Your task to perform on an android device: change the clock style Image 0: 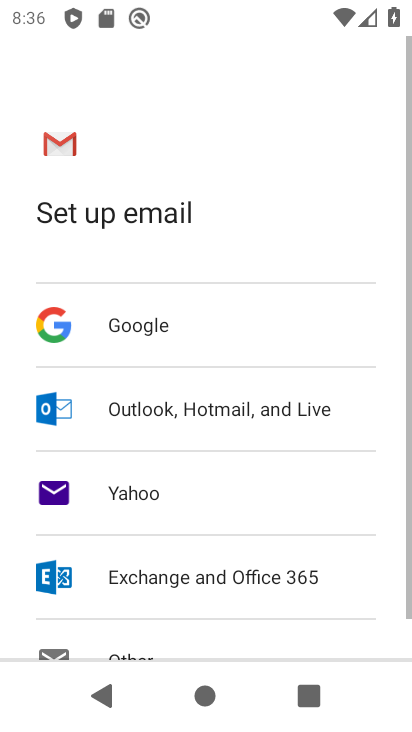
Step 0: press home button
Your task to perform on an android device: change the clock style Image 1: 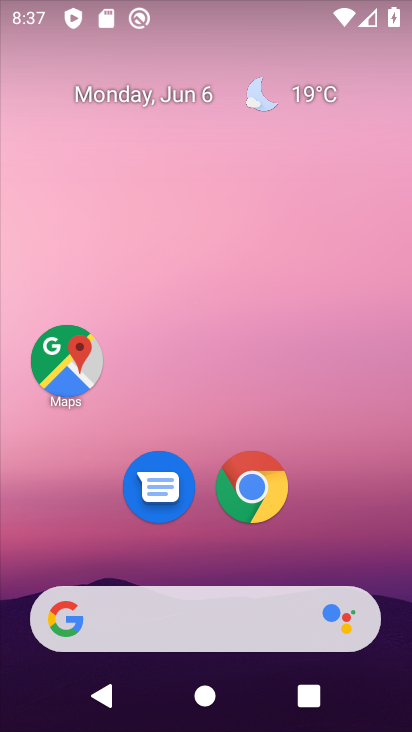
Step 1: drag from (205, 546) to (191, 27)
Your task to perform on an android device: change the clock style Image 2: 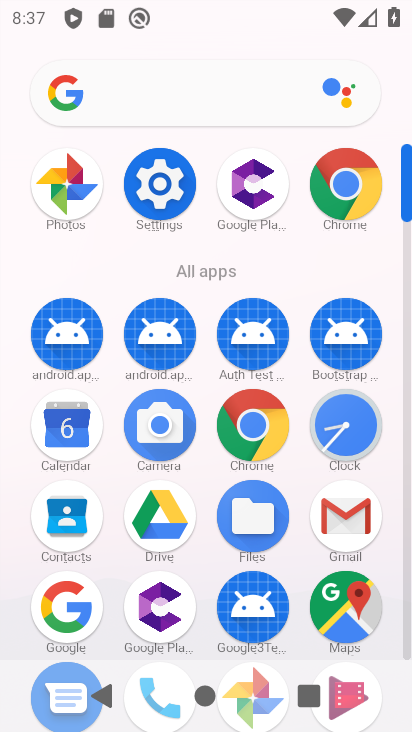
Step 2: click (346, 415)
Your task to perform on an android device: change the clock style Image 3: 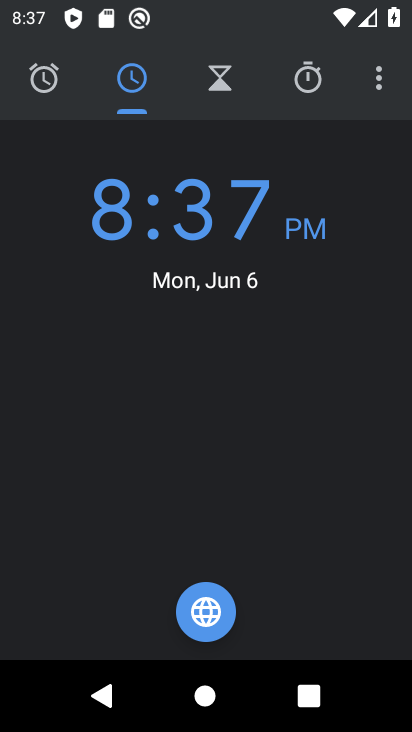
Step 3: click (375, 75)
Your task to perform on an android device: change the clock style Image 4: 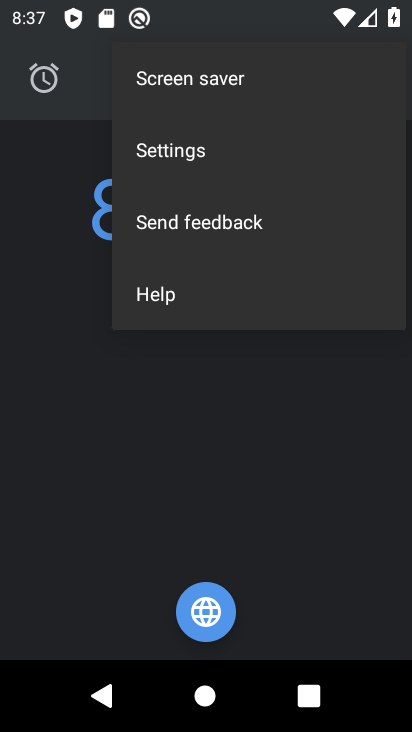
Step 4: click (223, 140)
Your task to perform on an android device: change the clock style Image 5: 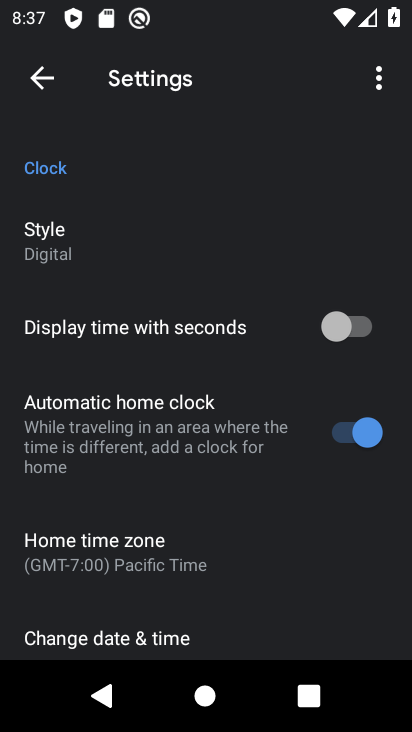
Step 5: click (98, 235)
Your task to perform on an android device: change the clock style Image 6: 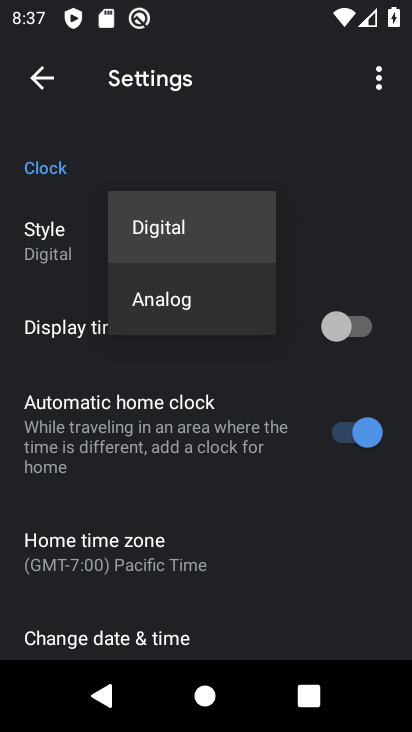
Step 6: click (196, 304)
Your task to perform on an android device: change the clock style Image 7: 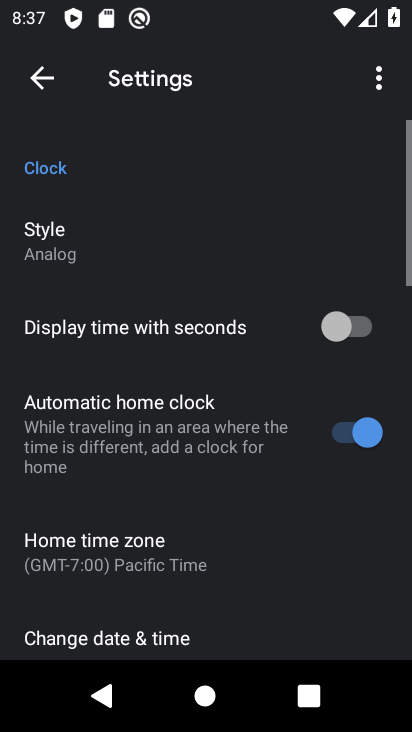
Step 7: task complete